Your task to perform on an android device: Open Youtube and go to "Your channel" Image 0: 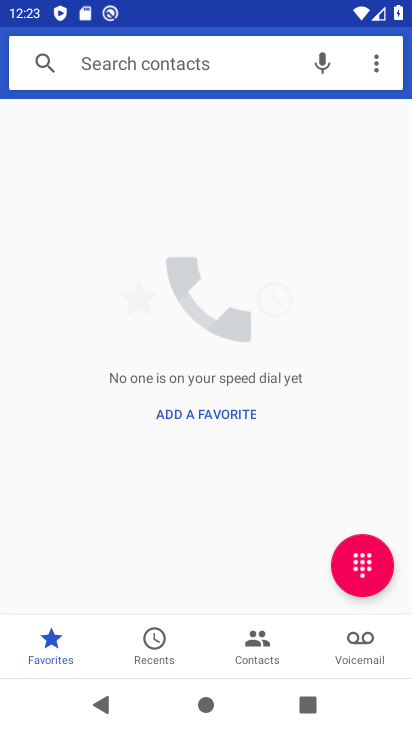
Step 0: press home button
Your task to perform on an android device: Open Youtube and go to "Your channel" Image 1: 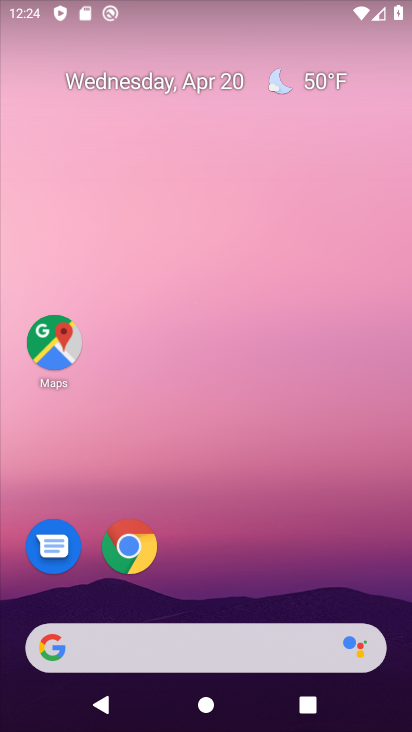
Step 1: drag from (234, 489) to (234, 43)
Your task to perform on an android device: Open Youtube and go to "Your channel" Image 2: 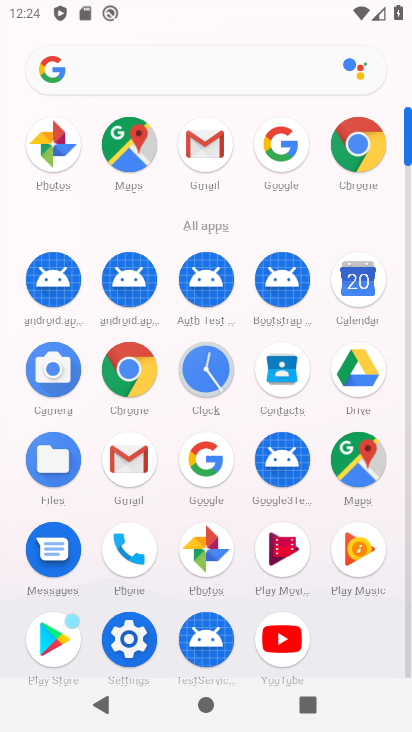
Step 2: click (281, 637)
Your task to perform on an android device: Open Youtube and go to "Your channel" Image 3: 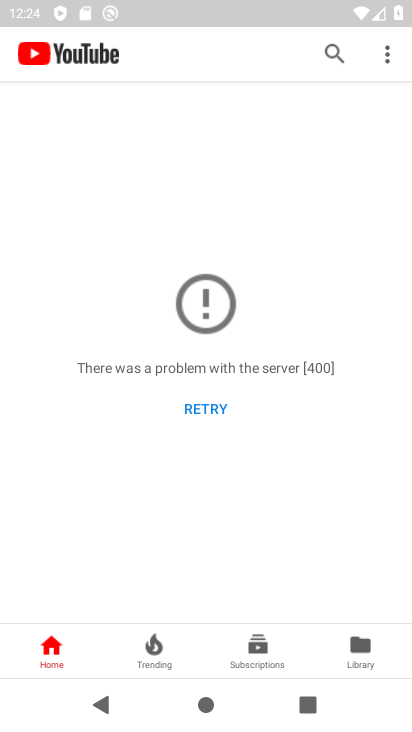
Step 3: click (381, 670)
Your task to perform on an android device: Open Youtube and go to "Your channel" Image 4: 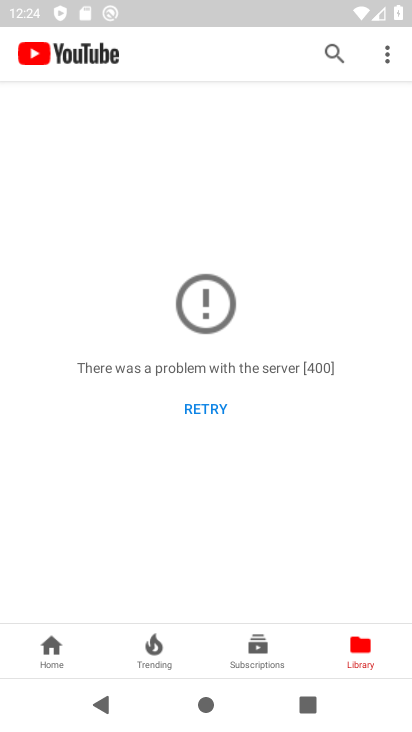
Step 4: task complete